Your task to perform on an android device: Open my contact list Image 0: 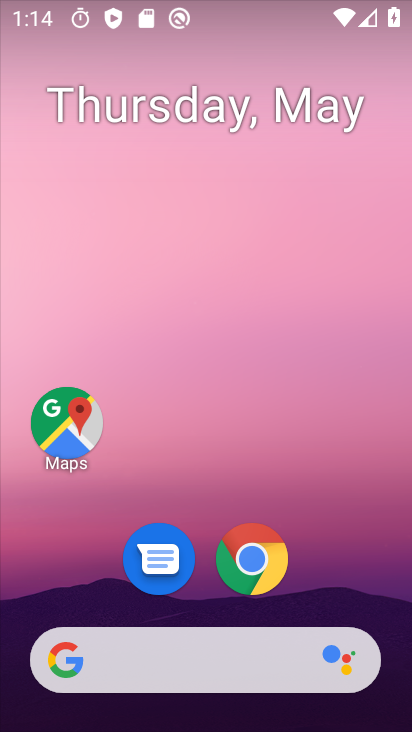
Step 0: drag from (40, 621) to (199, 180)
Your task to perform on an android device: Open my contact list Image 1: 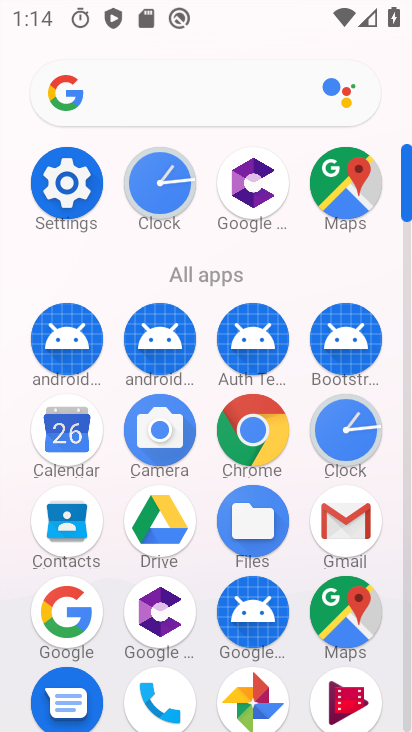
Step 1: click (80, 535)
Your task to perform on an android device: Open my contact list Image 2: 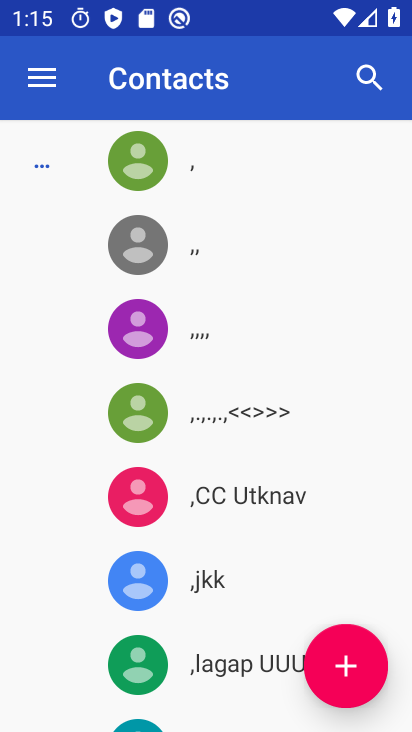
Step 2: task complete